Your task to perform on an android device: Open internet settings Image 0: 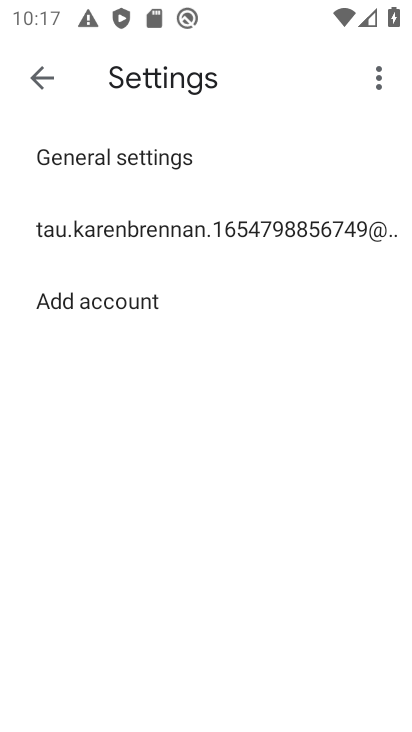
Step 0: press home button
Your task to perform on an android device: Open internet settings Image 1: 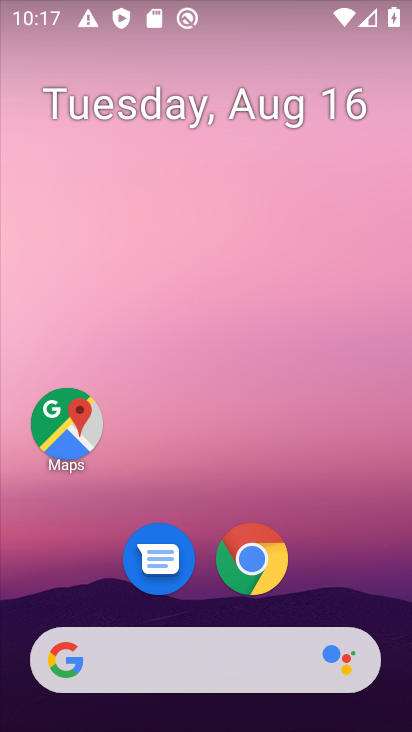
Step 1: drag from (208, 193) to (249, 21)
Your task to perform on an android device: Open internet settings Image 2: 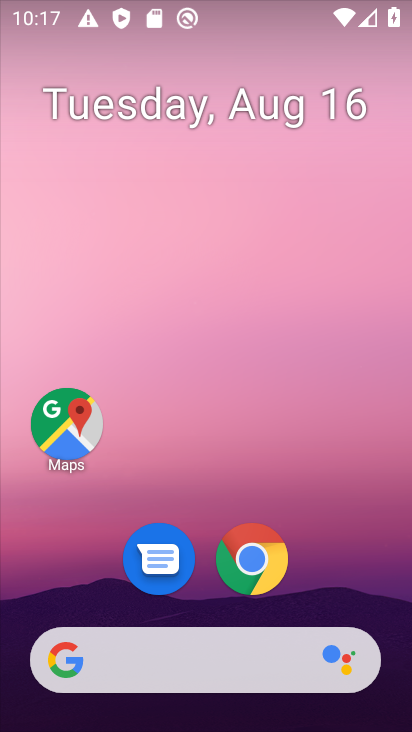
Step 2: drag from (198, 433) to (204, 13)
Your task to perform on an android device: Open internet settings Image 3: 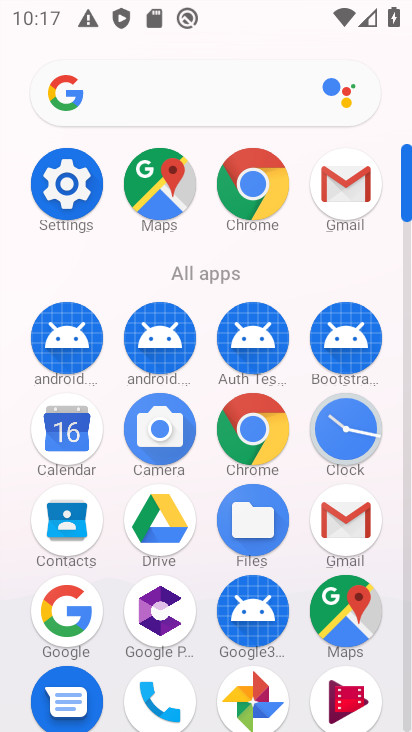
Step 3: click (64, 181)
Your task to perform on an android device: Open internet settings Image 4: 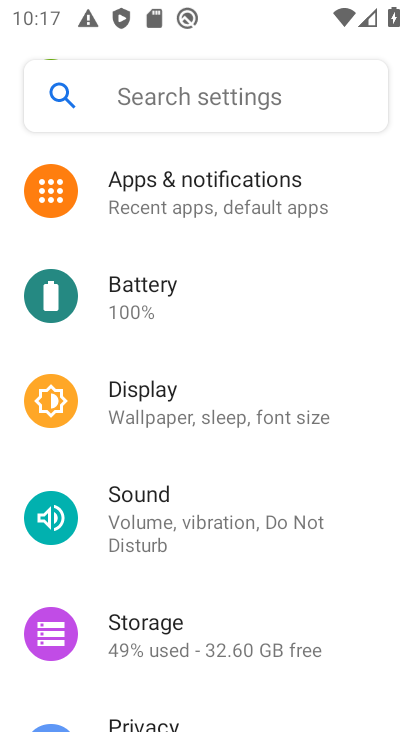
Step 4: drag from (266, 341) to (167, 718)
Your task to perform on an android device: Open internet settings Image 5: 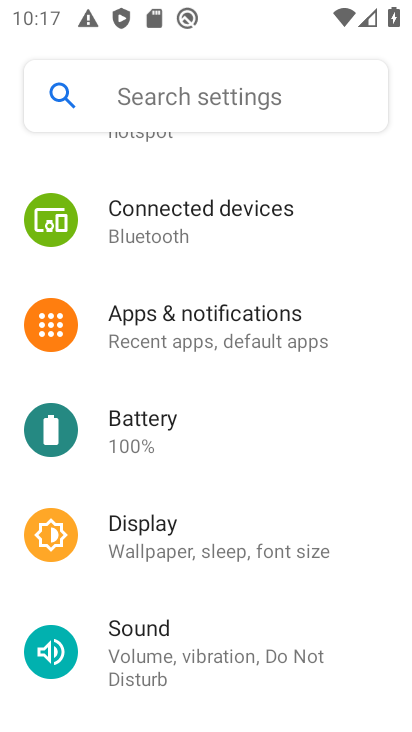
Step 5: drag from (218, 315) to (131, 600)
Your task to perform on an android device: Open internet settings Image 6: 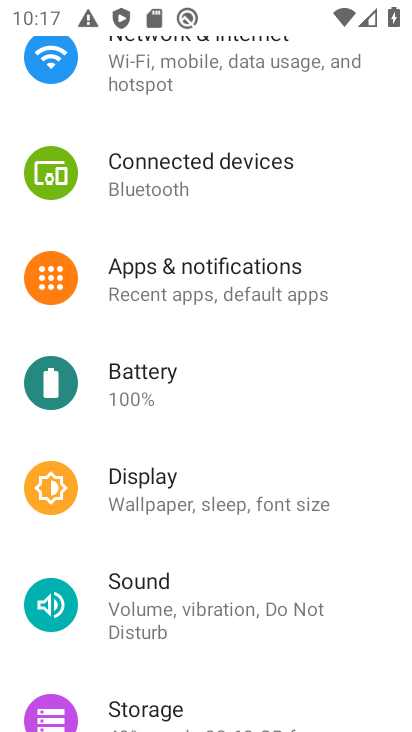
Step 6: click (160, 62)
Your task to perform on an android device: Open internet settings Image 7: 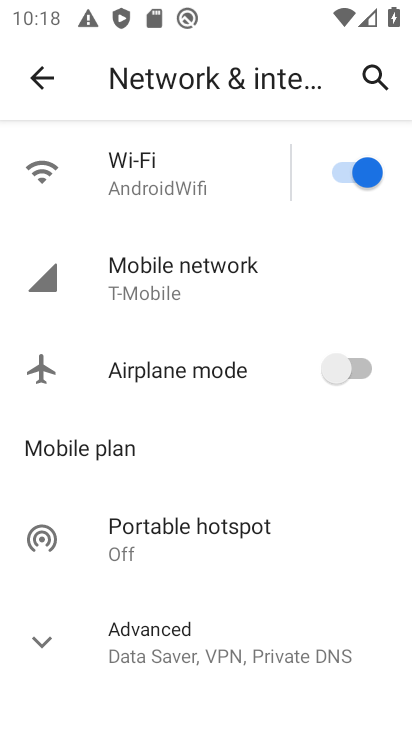
Step 7: task complete